Your task to perform on an android device: create a new album in the google photos Image 0: 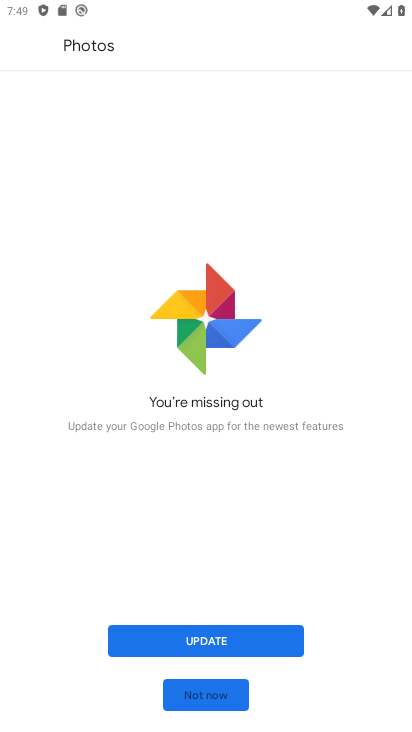
Step 0: click (232, 643)
Your task to perform on an android device: create a new album in the google photos Image 1: 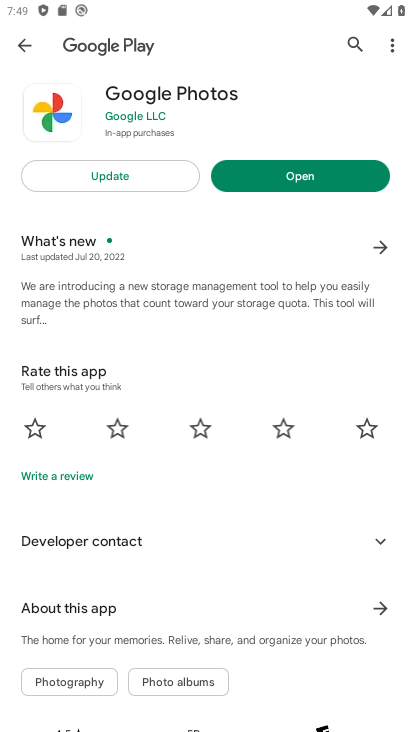
Step 1: click (151, 183)
Your task to perform on an android device: create a new album in the google photos Image 2: 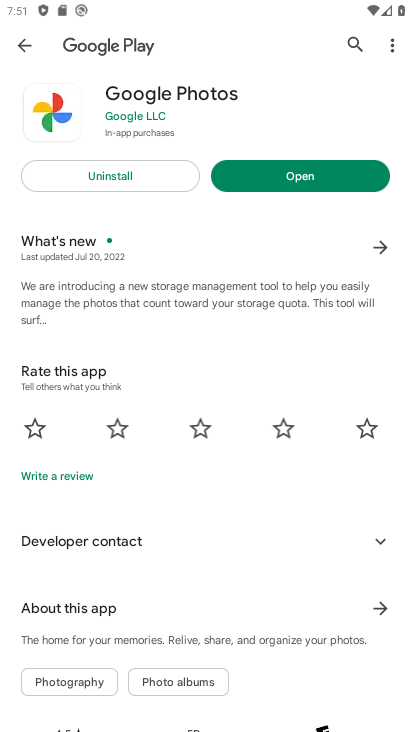
Step 2: click (345, 186)
Your task to perform on an android device: create a new album in the google photos Image 3: 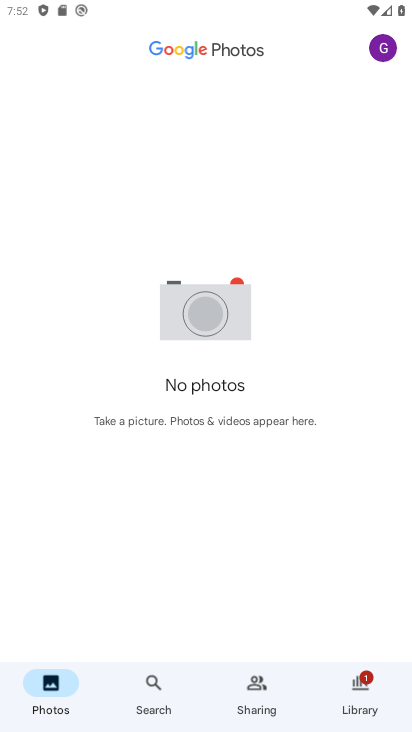
Step 3: task complete